Your task to perform on an android device: Open wifi settings Image 0: 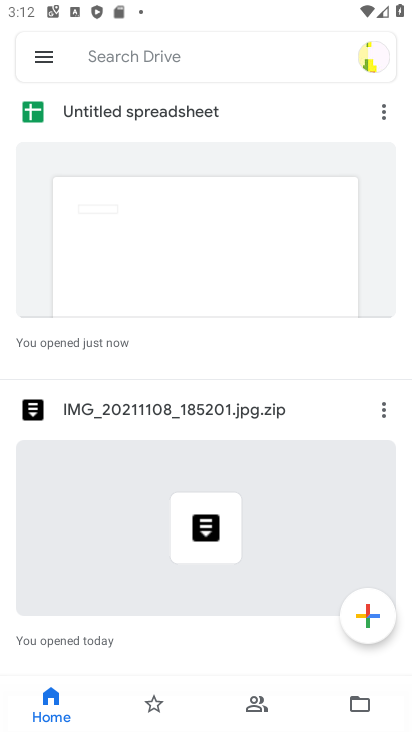
Step 0: press home button
Your task to perform on an android device: Open wifi settings Image 1: 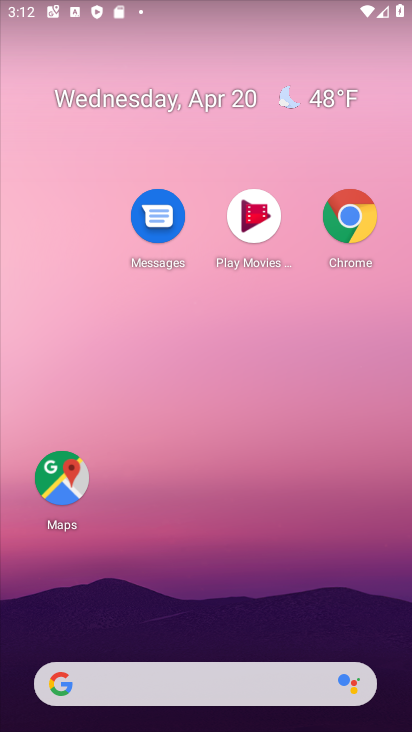
Step 1: drag from (319, 576) to (275, 114)
Your task to perform on an android device: Open wifi settings Image 2: 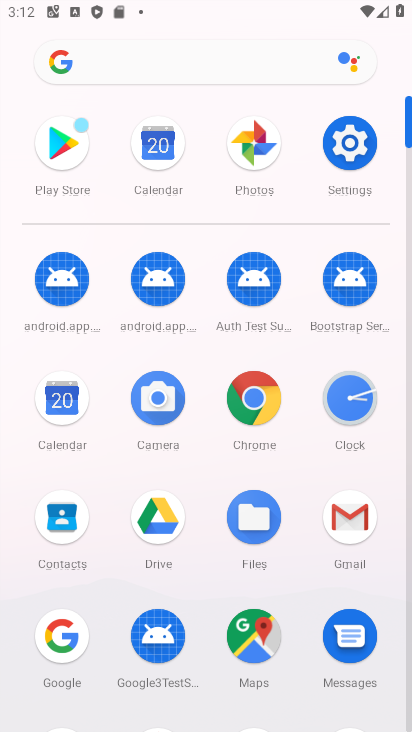
Step 2: click (355, 160)
Your task to perform on an android device: Open wifi settings Image 3: 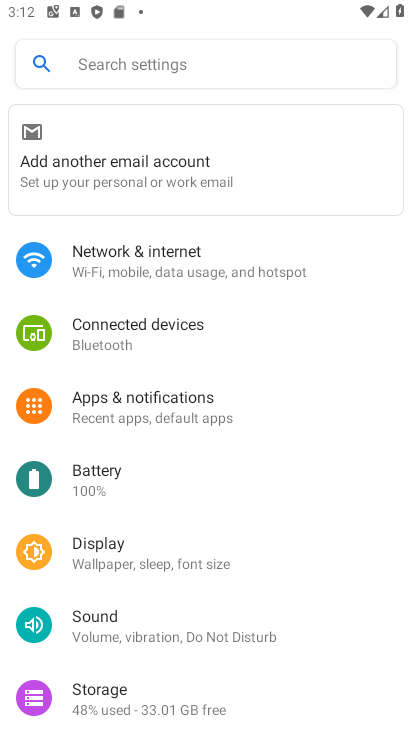
Step 3: click (204, 276)
Your task to perform on an android device: Open wifi settings Image 4: 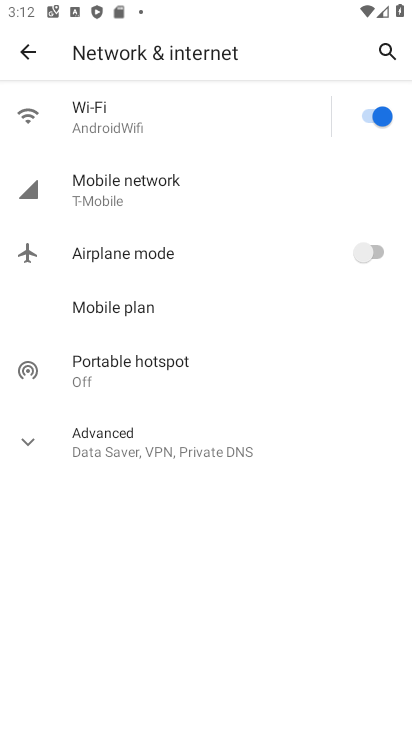
Step 4: click (153, 134)
Your task to perform on an android device: Open wifi settings Image 5: 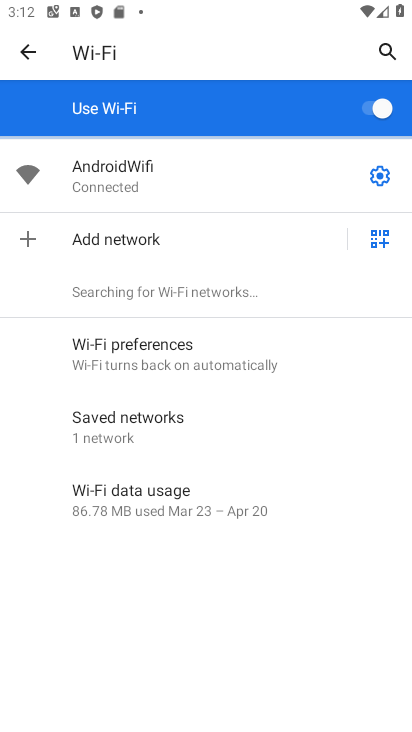
Step 5: task complete